Your task to perform on an android device: open chrome privacy settings Image 0: 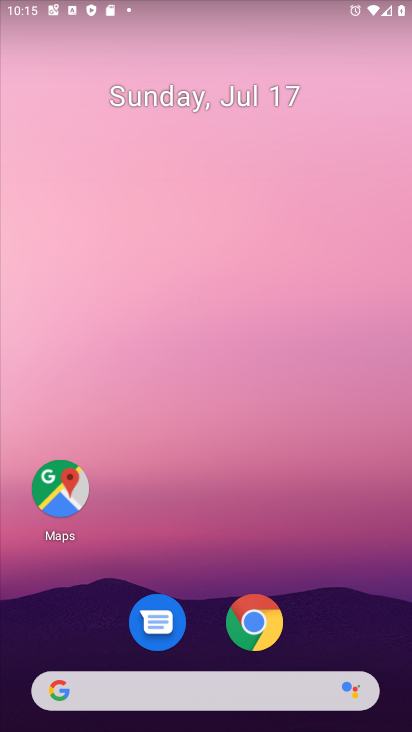
Step 0: click (244, 630)
Your task to perform on an android device: open chrome privacy settings Image 1: 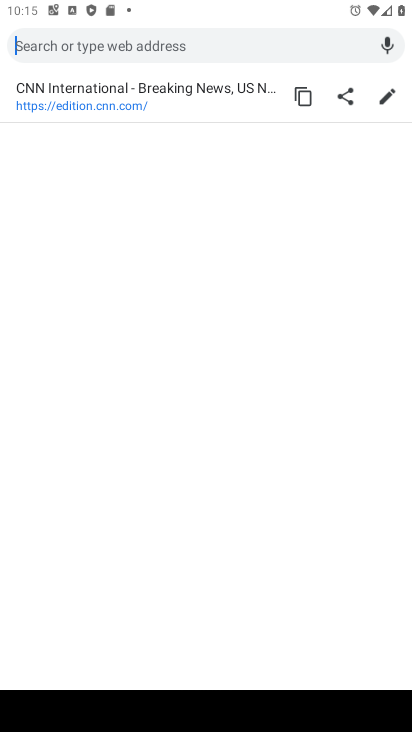
Step 1: click (182, 86)
Your task to perform on an android device: open chrome privacy settings Image 2: 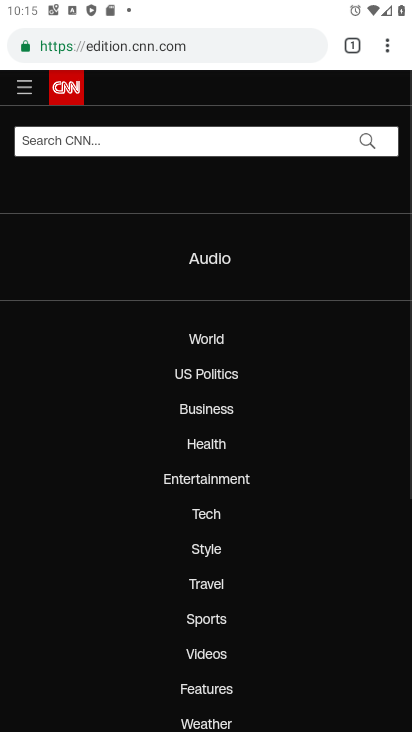
Step 2: click (385, 37)
Your task to perform on an android device: open chrome privacy settings Image 3: 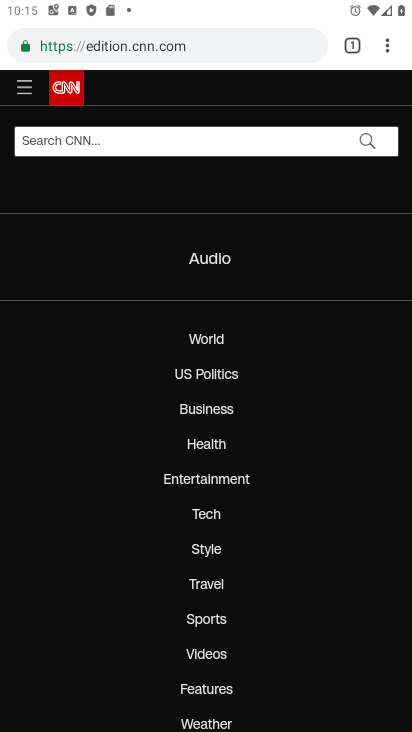
Step 3: click (379, 41)
Your task to perform on an android device: open chrome privacy settings Image 4: 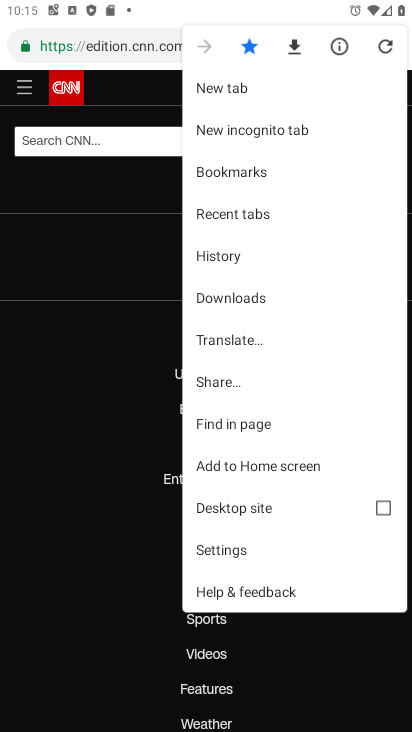
Step 4: click (226, 555)
Your task to perform on an android device: open chrome privacy settings Image 5: 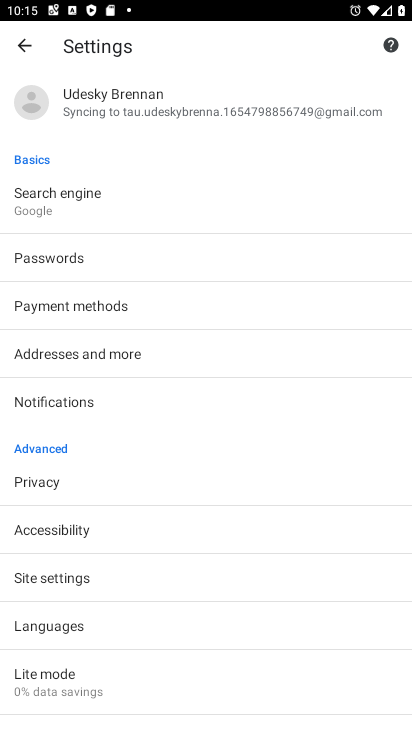
Step 5: click (30, 476)
Your task to perform on an android device: open chrome privacy settings Image 6: 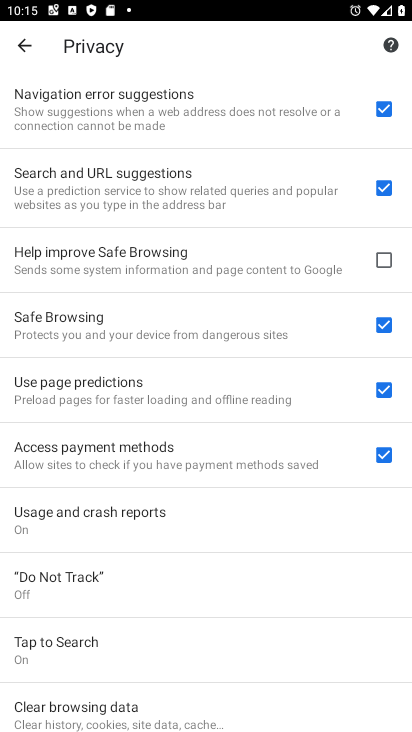
Step 6: task complete